Your task to perform on an android device: What's the weather going to be this weekend? Image 0: 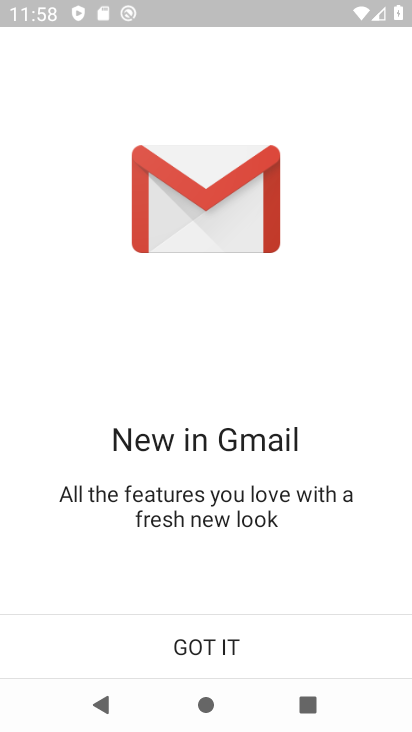
Step 0: press home button
Your task to perform on an android device: What's the weather going to be this weekend? Image 1: 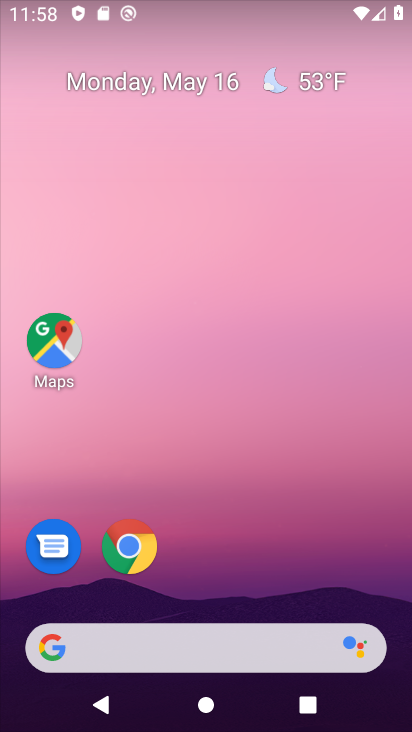
Step 1: click (309, 72)
Your task to perform on an android device: What's the weather going to be this weekend? Image 2: 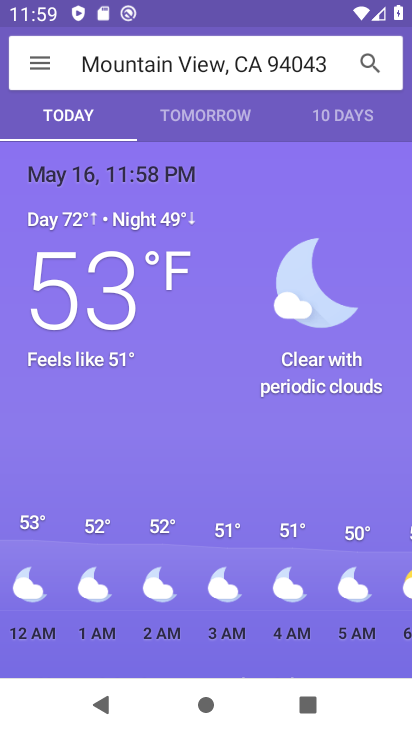
Step 2: click (321, 116)
Your task to perform on an android device: What's the weather going to be this weekend? Image 3: 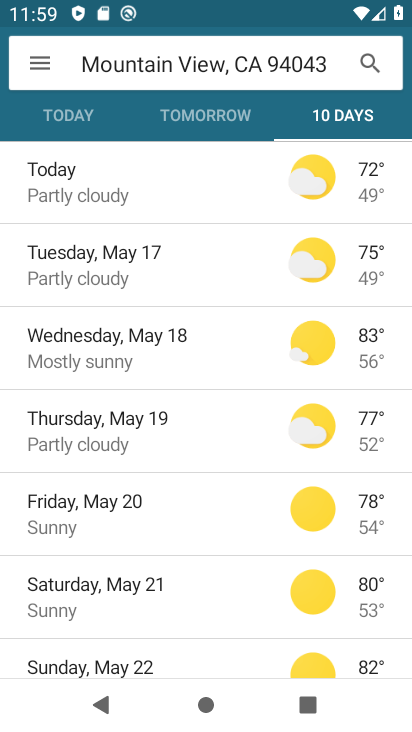
Step 3: click (156, 589)
Your task to perform on an android device: What's the weather going to be this weekend? Image 4: 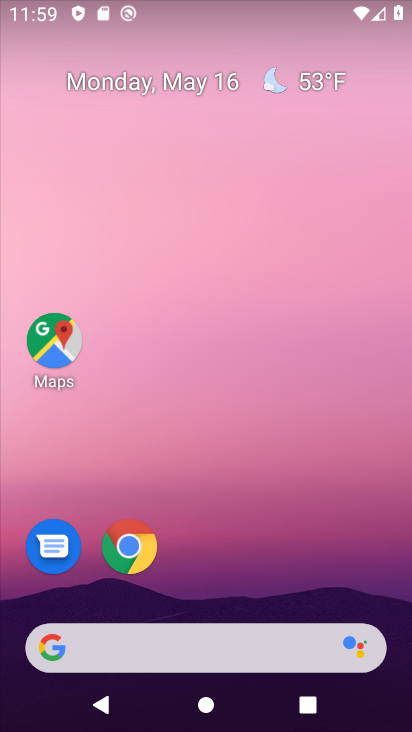
Step 4: task complete